Your task to perform on an android device: uninstall "LinkedIn" Image 0: 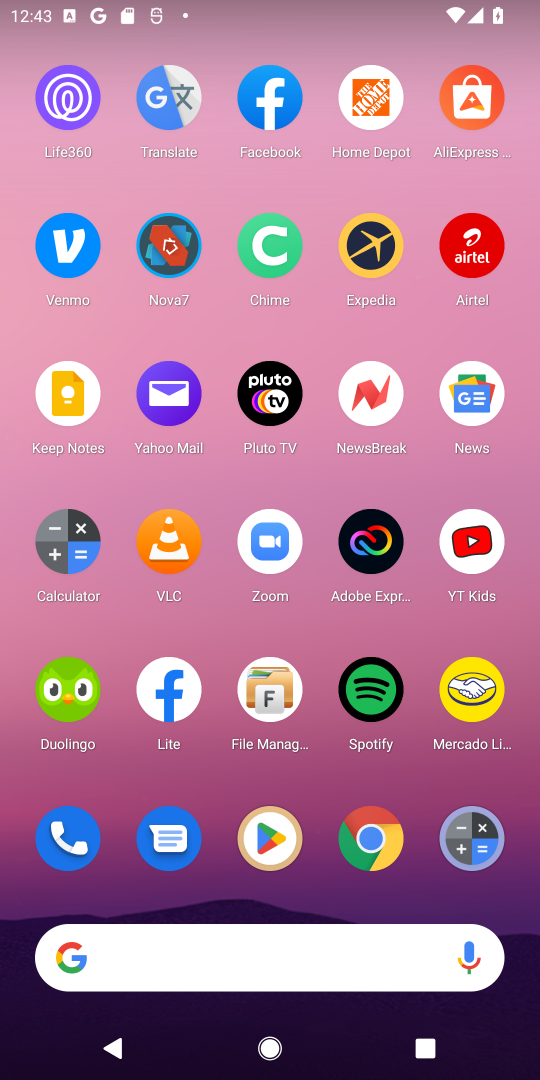
Step 0: click (255, 834)
Your task to perform on an android device: uninstall "LinkedIn" Image 1: 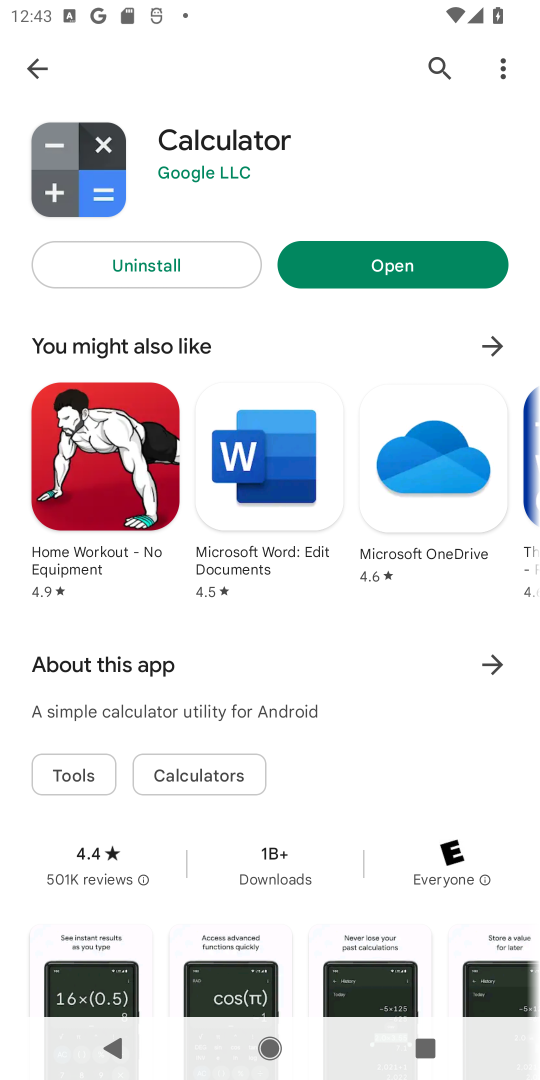
Step 1: click (474, 61)
Your task to perform on an android device: uninstall "LinkedIn" Image 2: 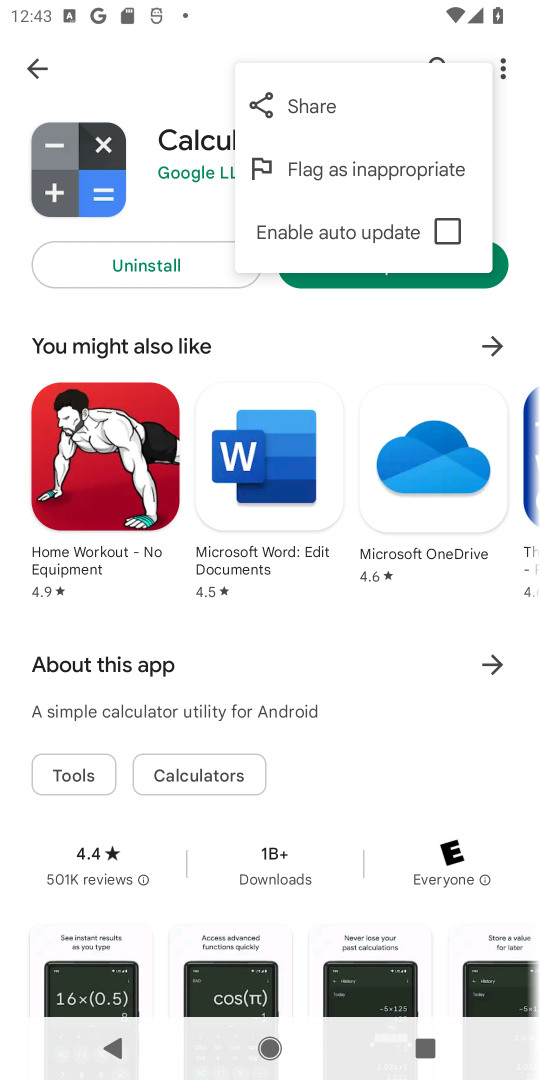
Step 2: click (105, 88)
Your task to perform on an android device: uninstall "LinkedIn" Image 3: 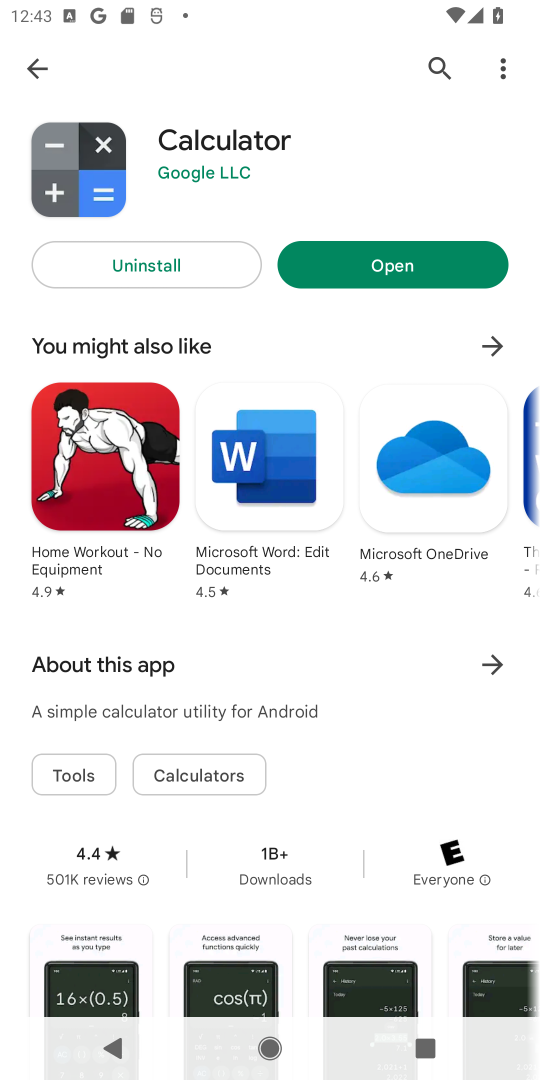
Step 3: click (426, 56)
Your task to perform on an android device: uninstall "LinkedIn" Image 4: 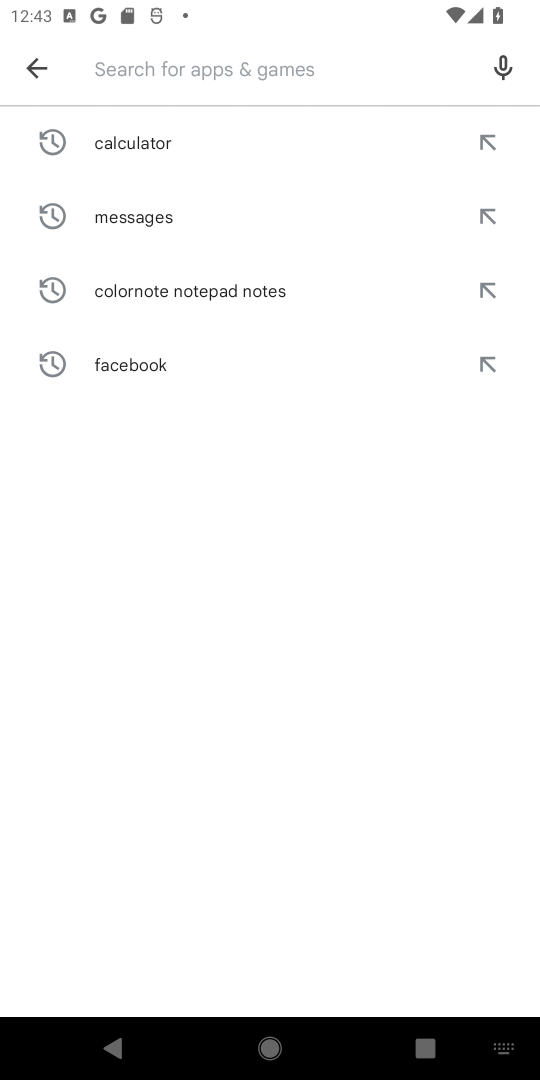
Step 4: type "LinkedIn"
Your task to perform on an android device: uninstall "LinkedIn" Image 5: 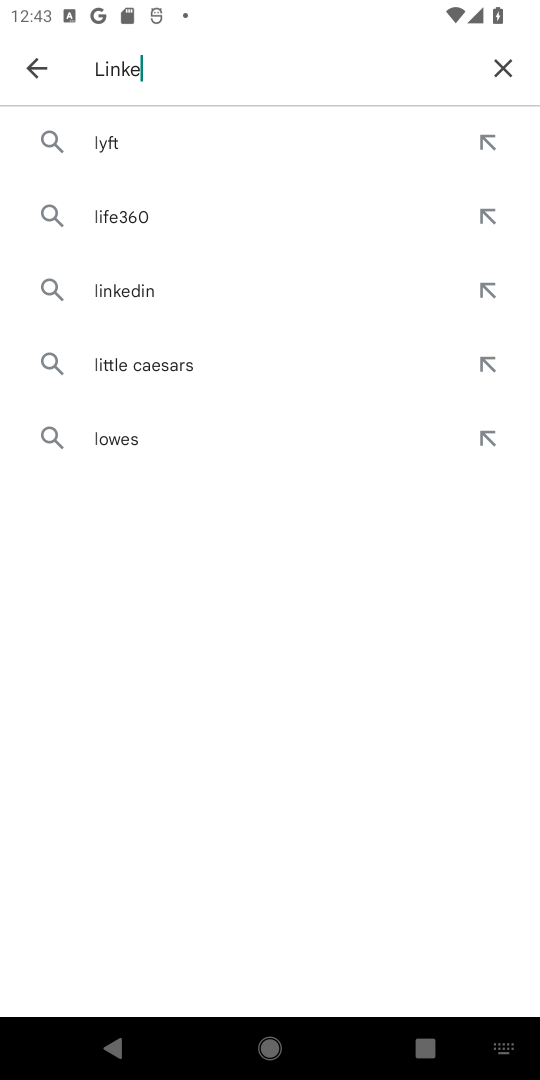
Step 5: type ""
Your task to perform on an android device: uninstall "LinkedIn" Image 6: 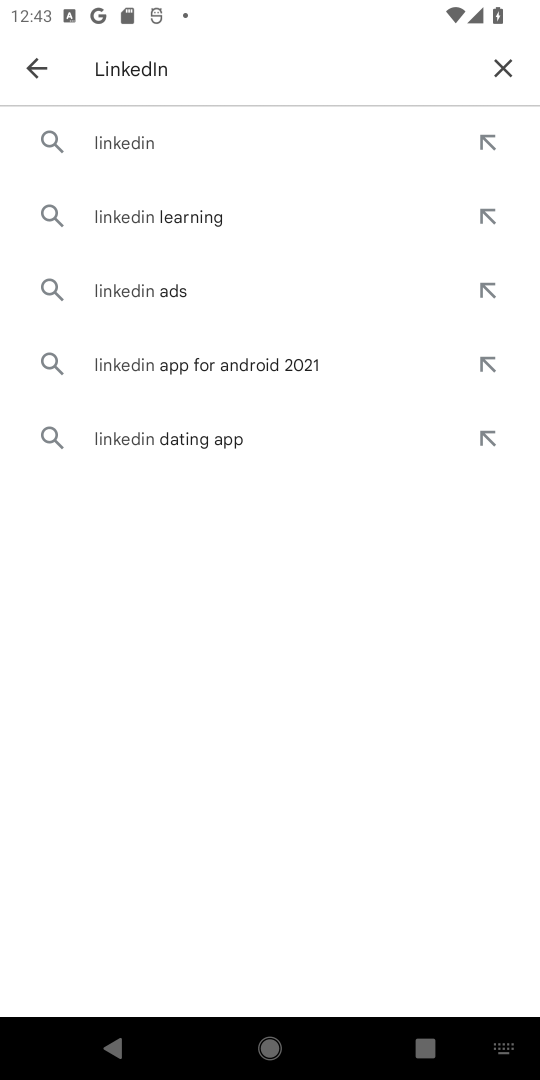
Step 6: click (168, 151)
Your task to perform on an android device: uninstall "LinkedIn" Image 7: 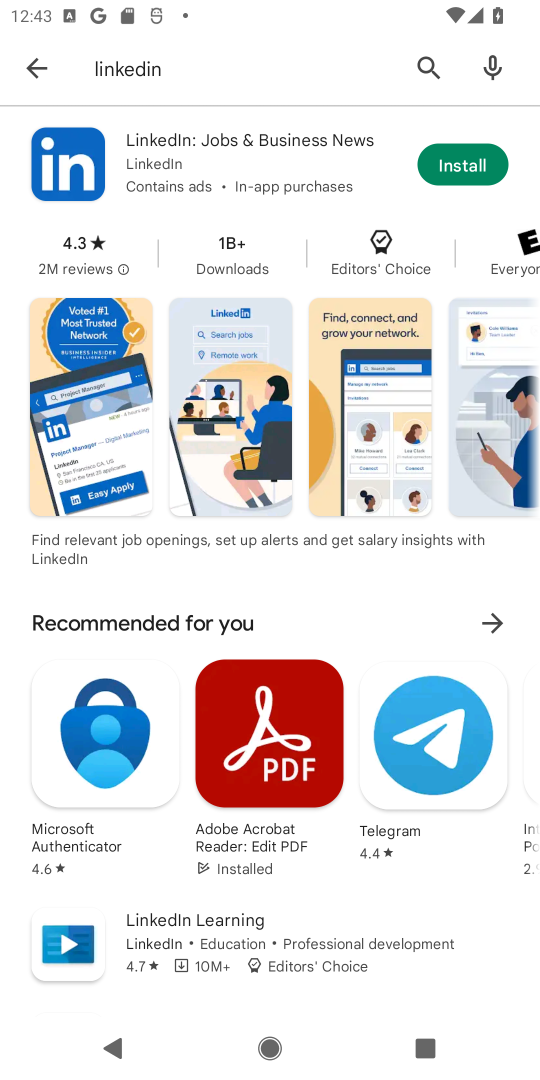
Step 7: task complete